Your task to perform on an android device: Go to network settings Image 0: 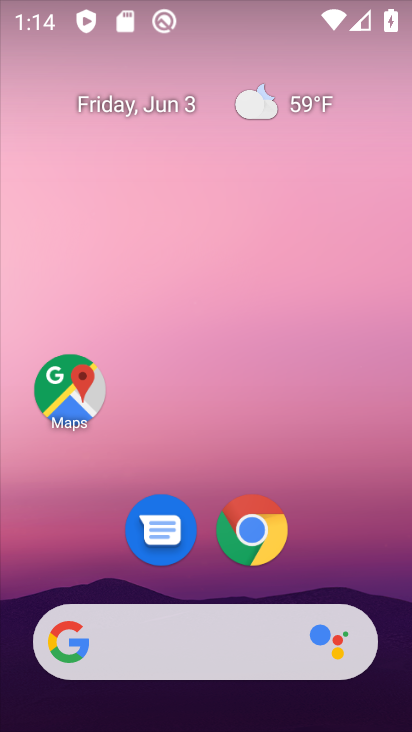
Step 0: drag from (328, 499) to (329, 0)
Your task to perform on an android device: Go to network settings Image 1: 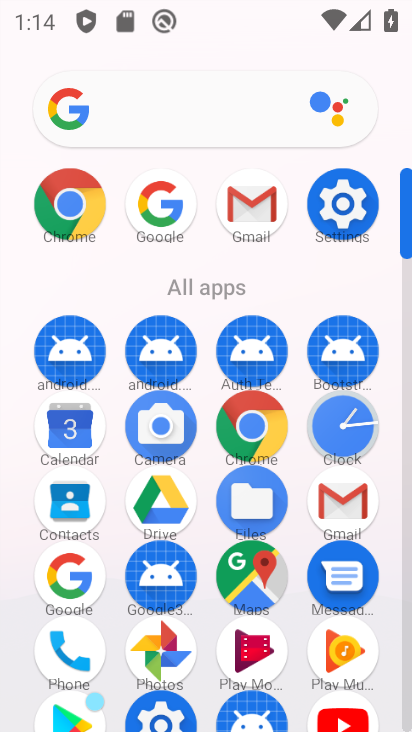
Step 1: click (339, 201)
Your task to perform on an android device: Go to network settings Image 2: 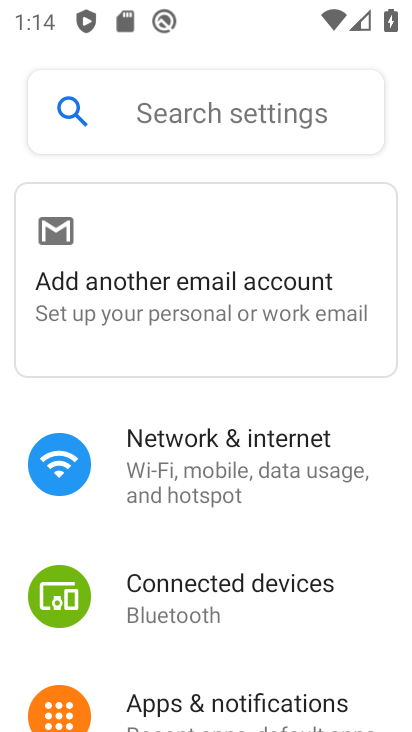
Step 2: click (160, 479)
Your task to perform on an android device: Go to network settings Image 3: 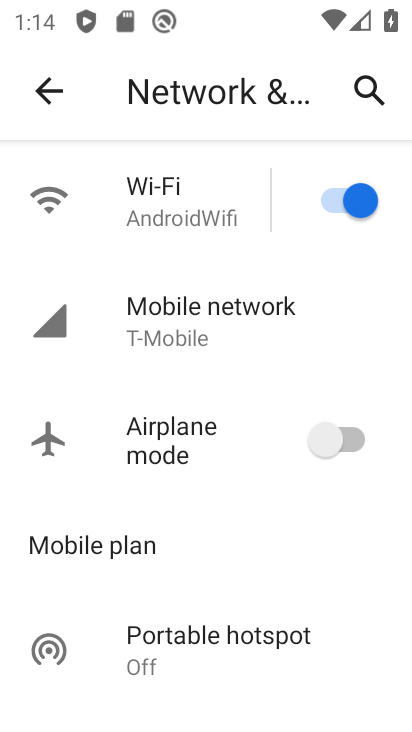
Step 3: click (166, 311)
Your task to perform on an android device: Go to network settings Image 4: 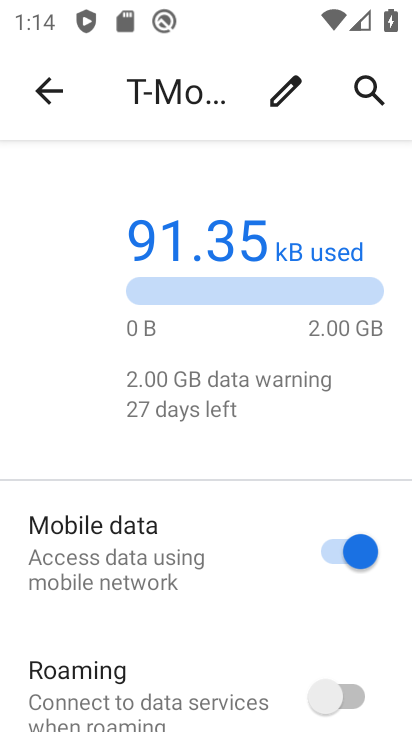
Step 4: task complete